Your task to perform on an android device: turn off notifications in google photos Image 0: 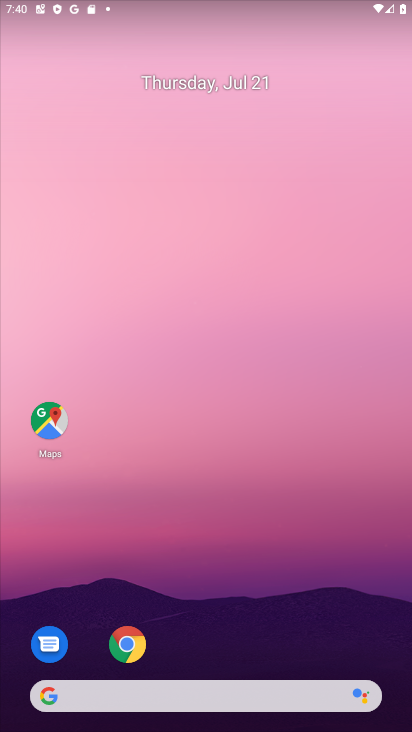
Step 0: drag from (210, 542) to (209, 208)
Your task to perform on an android device: turn off notifications in google photos Image 1: 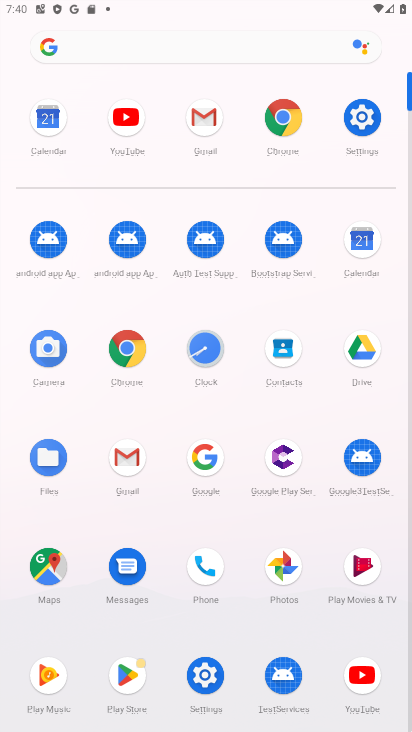
Step 1: click (291, 579)
Your task to perform on an android device: turn off notifications in google photos Image 2: 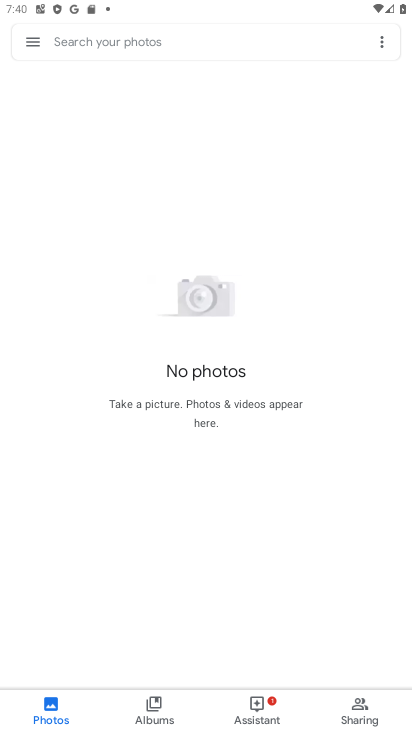
Step 2: click (28, 44)
Your task to perform on an android device: turn off notifications in google photos Image 3: 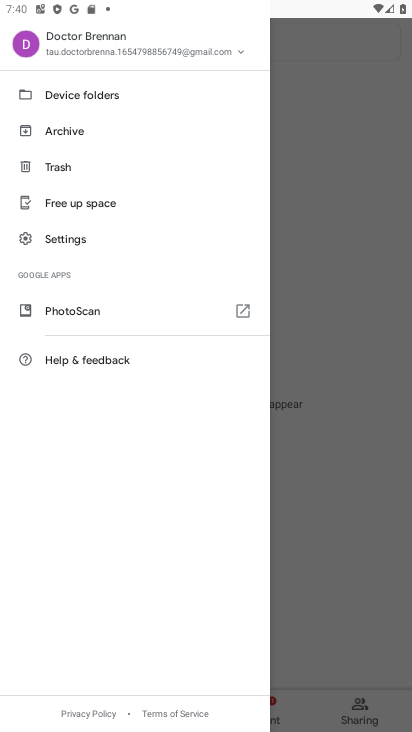
Step 3: click (73, 237)
Your task to perform on an android device: turn off notifications in google photos Image 4: 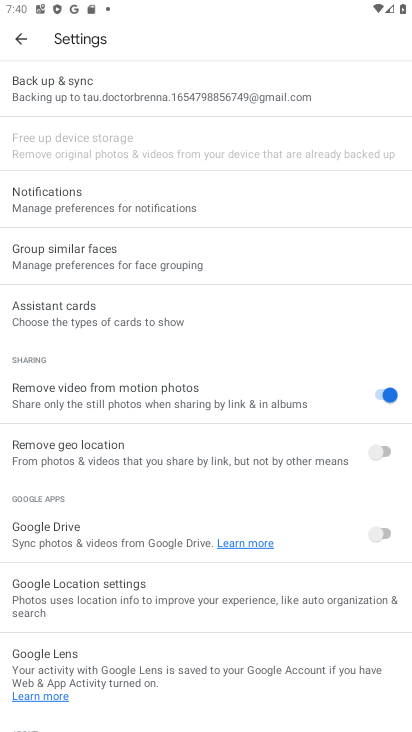
Step 4: click (88, 200)
Your task to perform on an android device: turn off notifications in google photos Image 5: 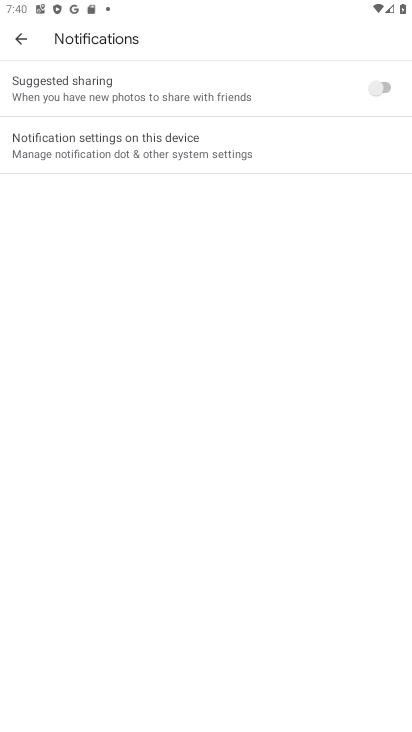
Step 5: click (194, 150)
Your task to perform on an android device: turn off notifications in google photos Image 6: 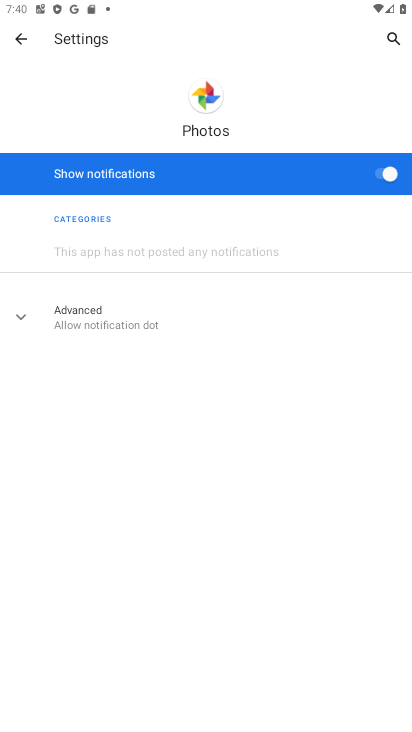
Step 6: click (388, 173)
Your task to perform on an android device: turn off notifications in google photos Image 7: 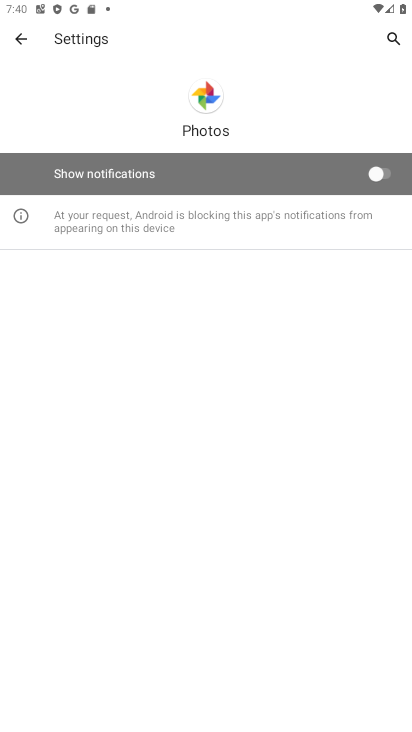
Step 7: task complete